Your task to perform on an android device: toggle translation in the chrome app Image 0: 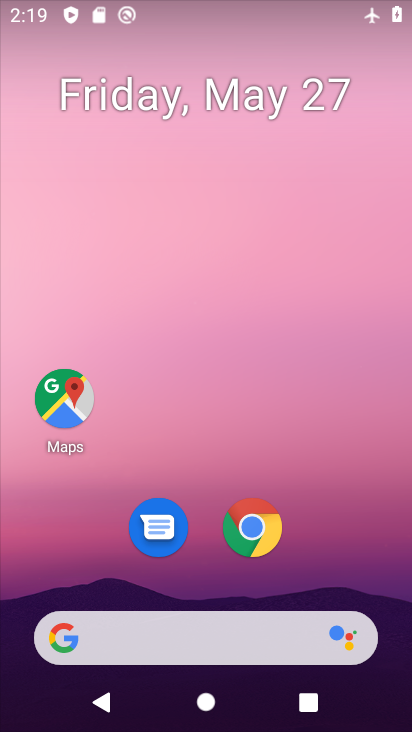
Step 0: click (270, 538)
Your task to perform on an android device: toggle translation in the chrome app Image 1: 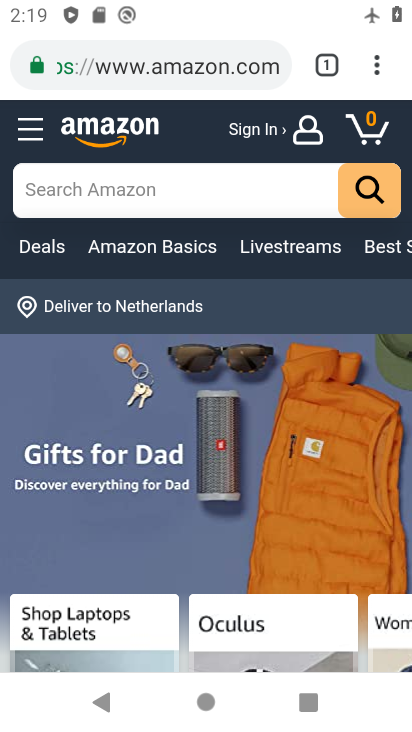
Step 1: click (376, 66)
Your task to perform on an android device: toggle translation in the chrome app Image 2: 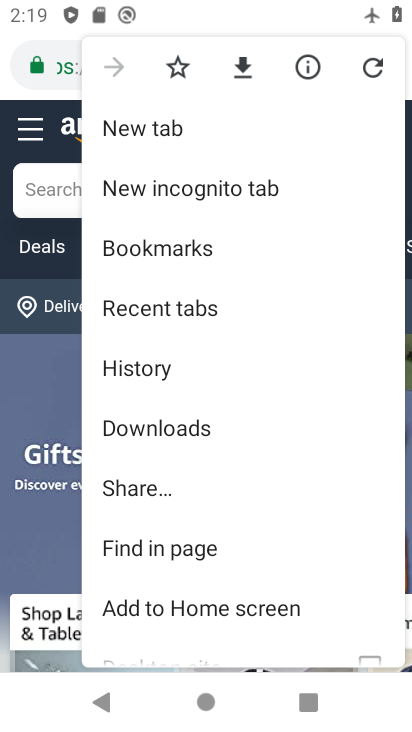
Step 2: drag from (189, 660) to (197, 283)
Your task to perform on an android device: toggle translation in the chrome app Image 3: 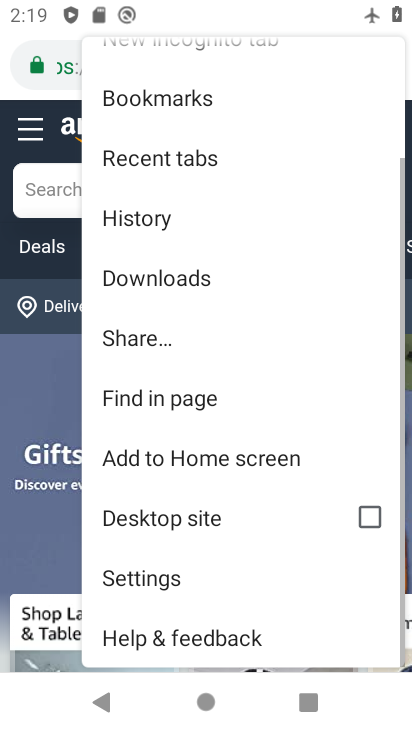
Step 3: click (172, 570)
Your task to perform on an android device: toggle translation in the chrome app Image 4: 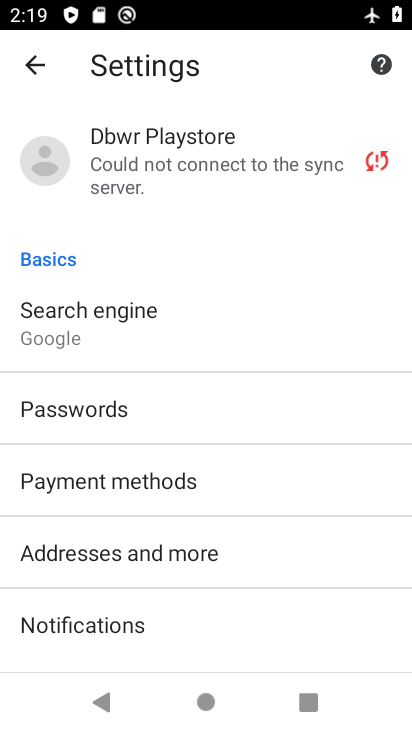
Step 4: drag from (169, 551) to (246, 53)
Your task to perform on an android device: toggle translation in the chrome app Image 5: 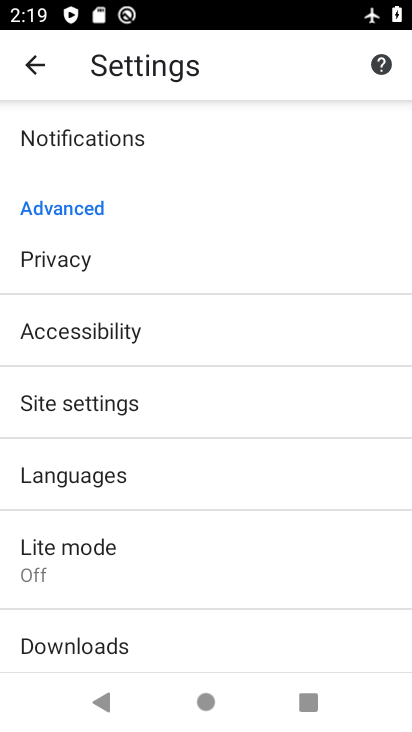
Step 5: click (111, 470)
Your task to perform on an android device: toggle translation in the chrome app Image 6: 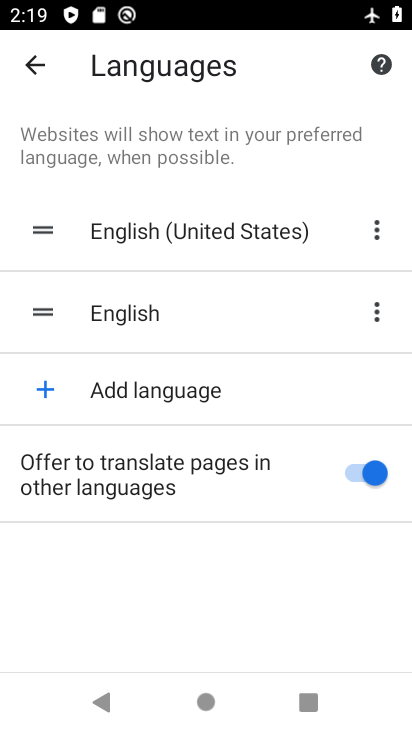
Step 6: click (367, 471)
Your task to perform on an android device: toggle translation in the chrome app Image 7: 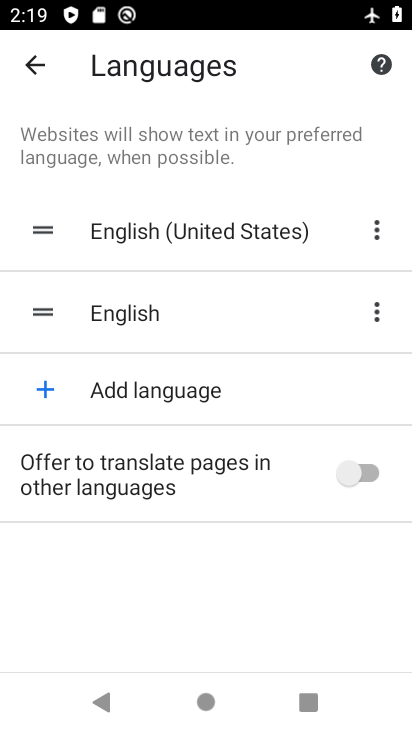
Step 7: task complete